Your task to perform on an android device: Go to Amazon Image 0: 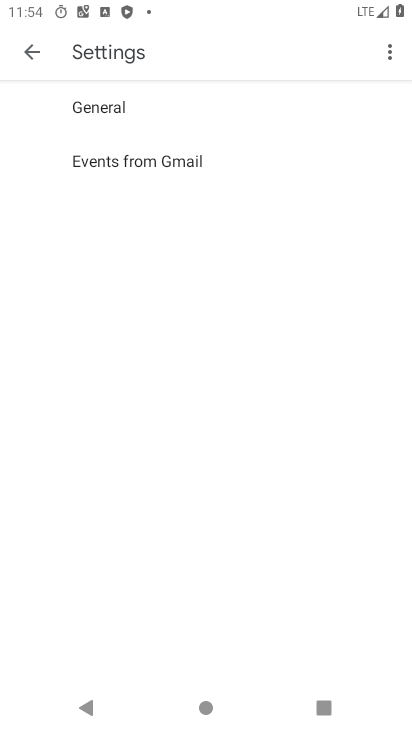
Step 0: press home button
Your task to perform on an android device: Go to Amazon Image 1: 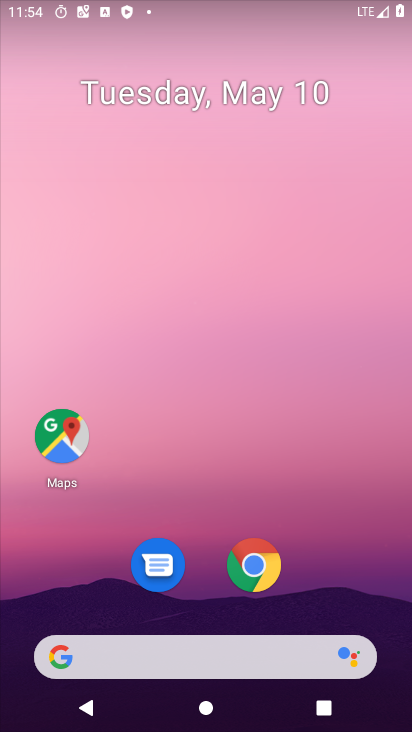
Step 1: click (261, 574)
Your task to perform on an android device: Go to Amazon Image 2: 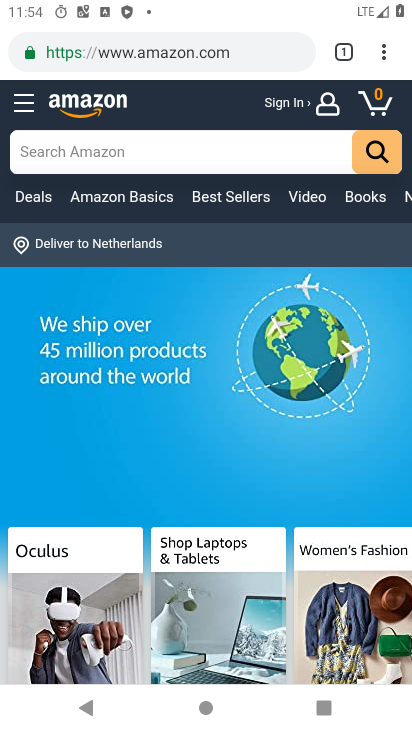
Step 2: task complete